Your task to perform on an android device: Open calendar and show me the first week of next month Image 0: 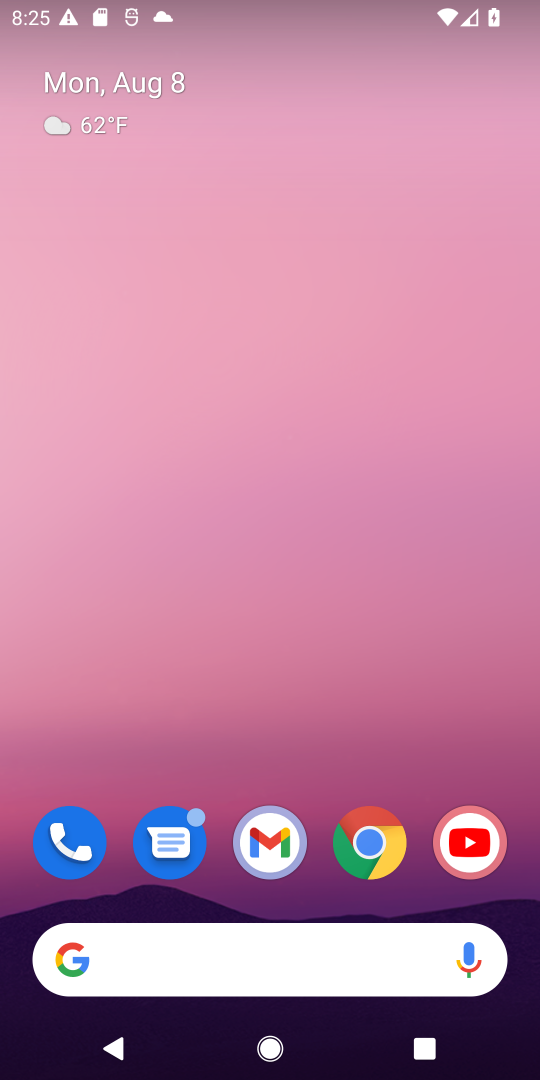
Step 0: drag from (341, 357) to (362, 0)
Your task to perform on an android device: Open calendar and show me the first week of next month Image 1: 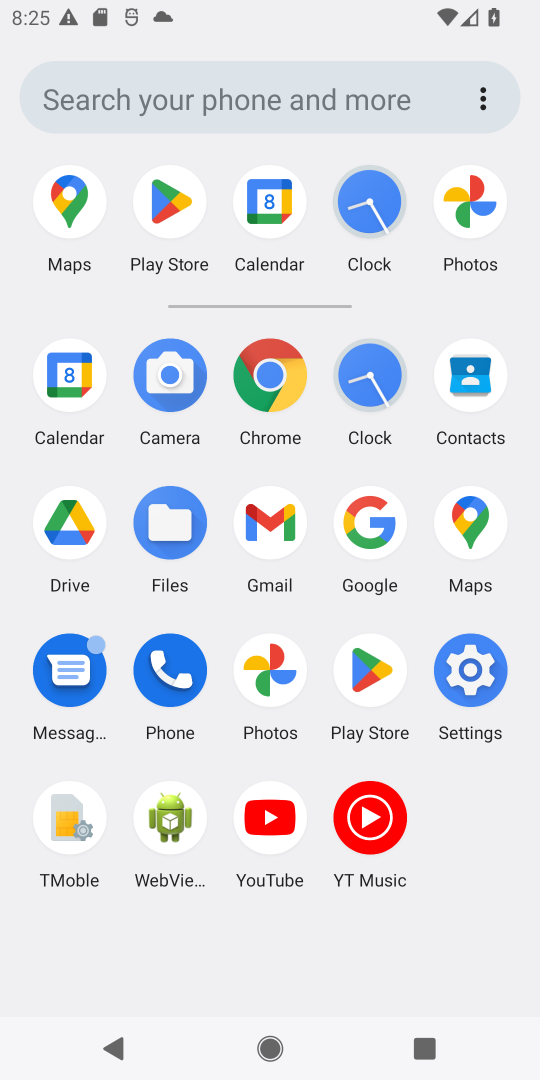
Step 1: click (75, 373)
Your task to perform on an android device: Open calendar and show me the first week of next month Image 2: 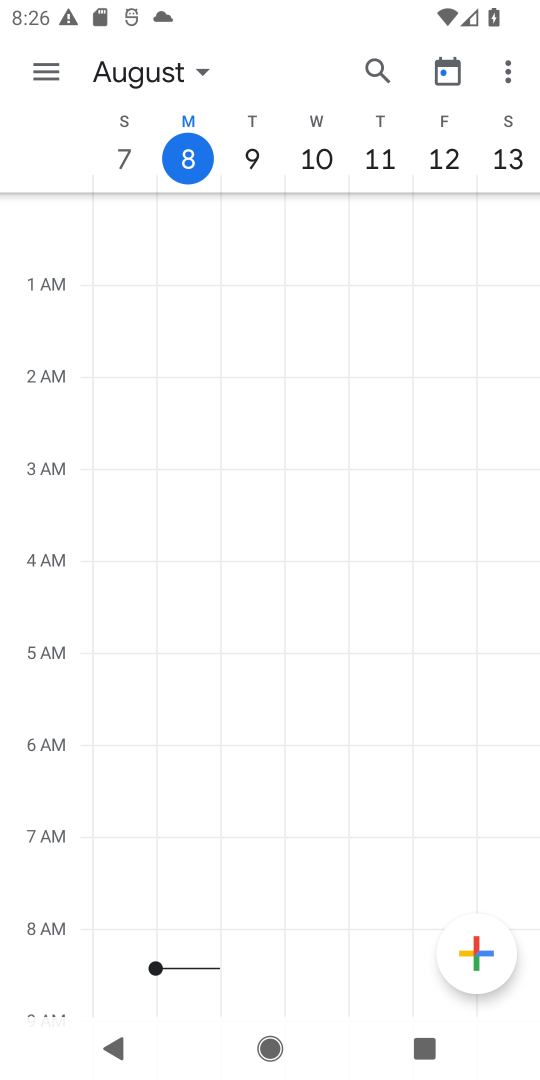
Step 2: task complete